Your task to perform on an android device: change the clock display to analog Image 0: 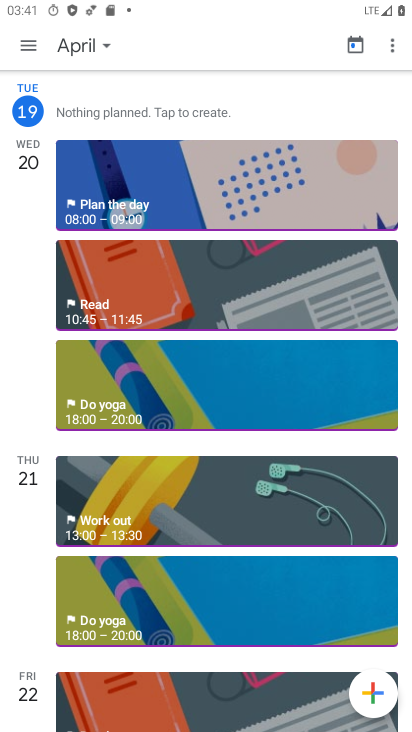
Step 0: press home button
Your task to perform on an android device: change the clock display to analog Image 1: 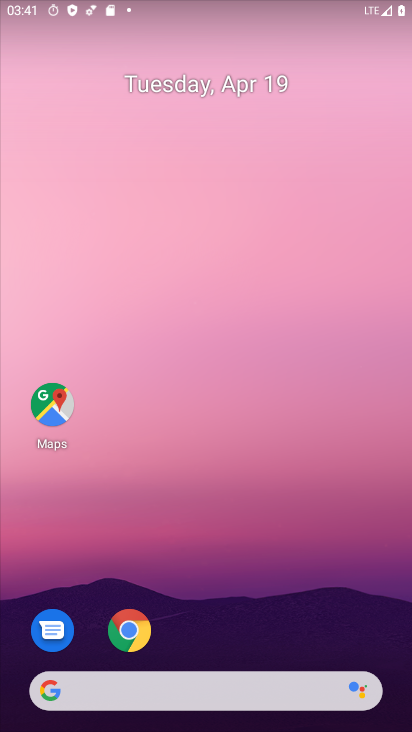
Step 1: drag from (199, 592) to (199, 54)
Your task to perform on an android device: change the clock display to analog Image 2: 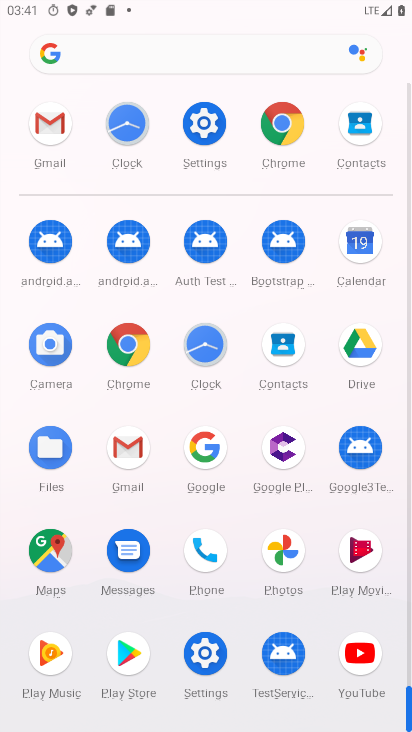
Step 2: click (201, 356)
Your task to perform on an android device: change the clock display to analog Image 3: 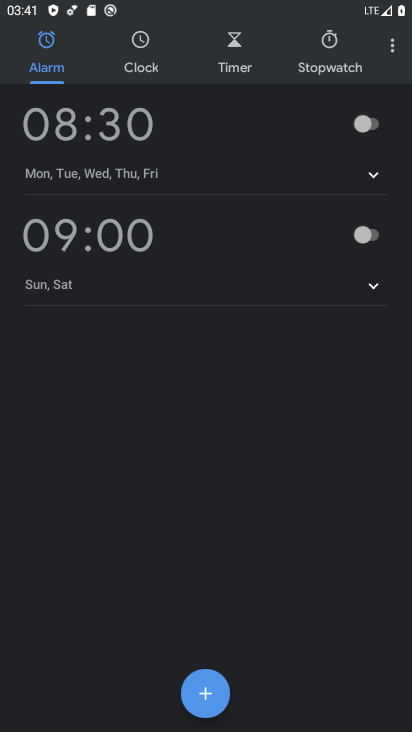
Step 3: click (393, 55)
Your task to perform on an android device: change the clock display to analog Image 4: 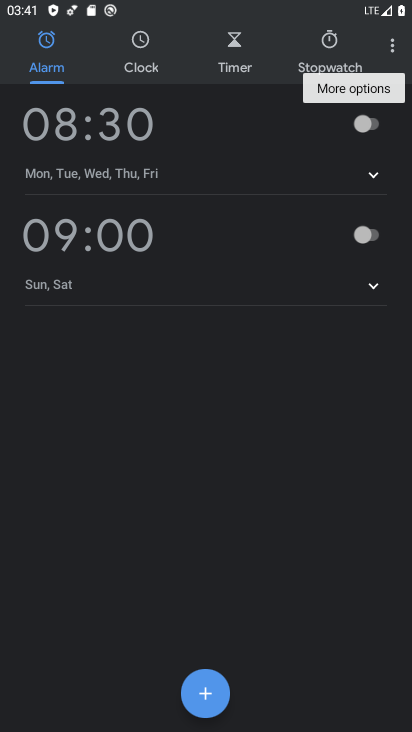
Step 4: click (400, 42)
Your task to perform on an android device: change the clock display to analog Image 5: 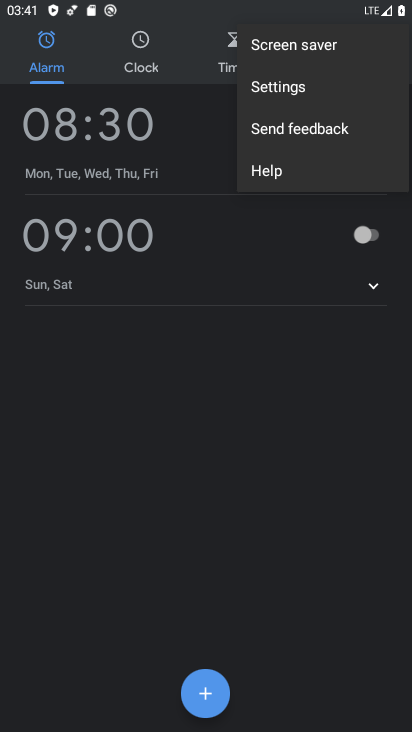
Step 5: click (262, 87)
Your task to perform on an android device: change the clock display to analog Image 6: 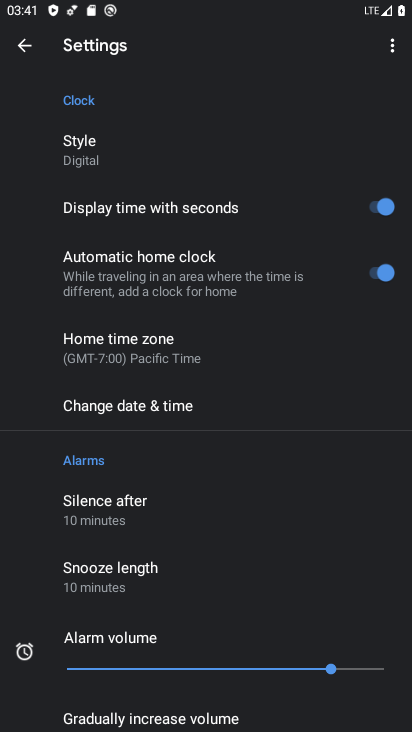
Step 6: click (81, 156)
Your task to perform on an android device: change the clock display to analog Image 7: 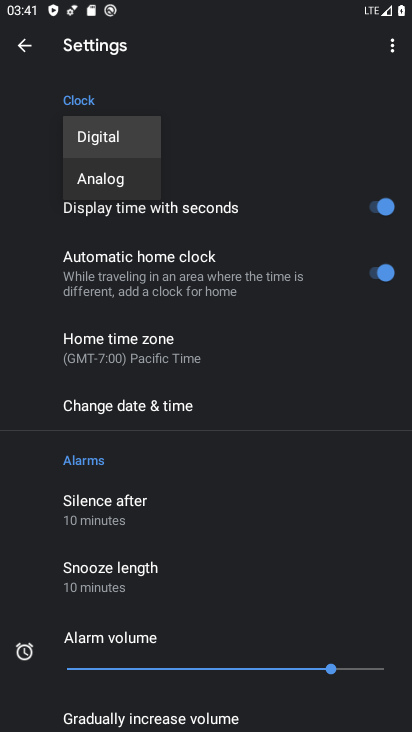
Step 7: click (101, 178)
Your task to perform on an android device: change the clock display to analog Image 8: 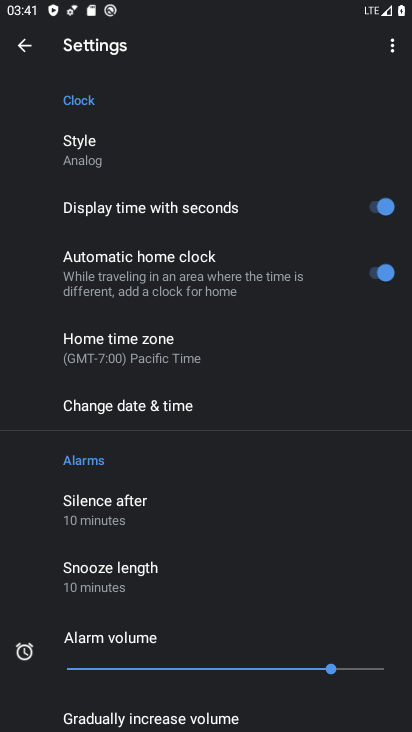
Step 8: task complete